Your task to perform on an android device: Open the stopwatch Image 0: 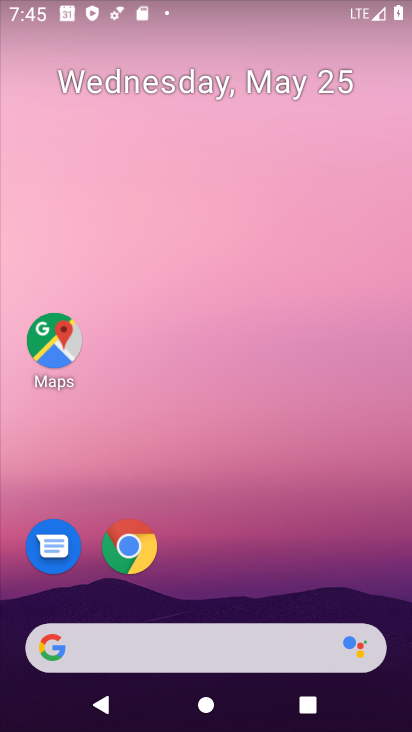
Step 0: drag from (383, 594) to (392, 295)
Your task to perform on an android device: Open the stopwatch Image 1: 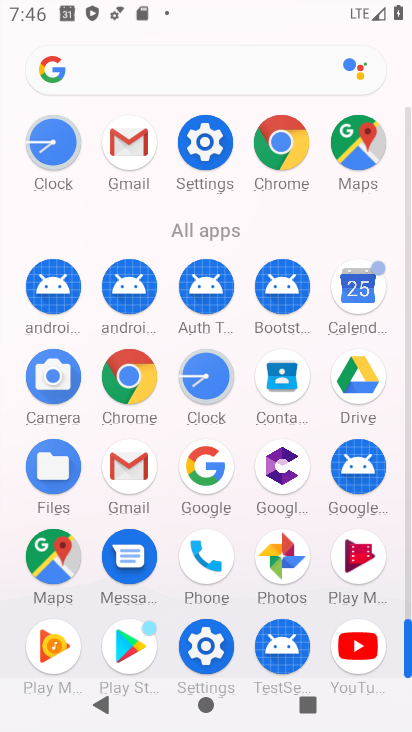
Step 1: click (210, 401)
Your task to perform on an android device: Open the stopwatch Image 2: 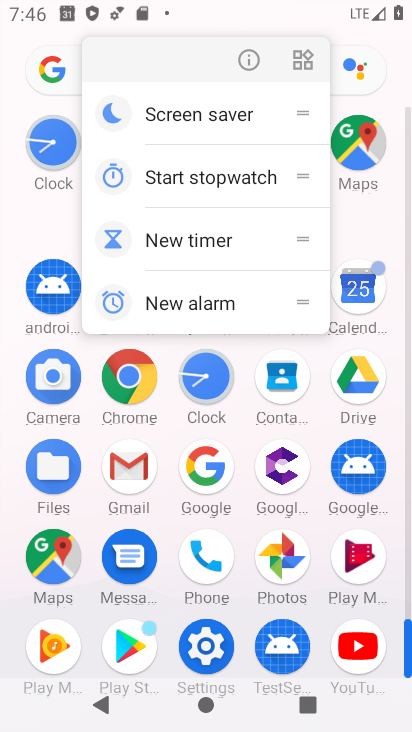
Step 2: click (210, 401)
Your task to perform on an android device: Open the stopwatch Image 3: 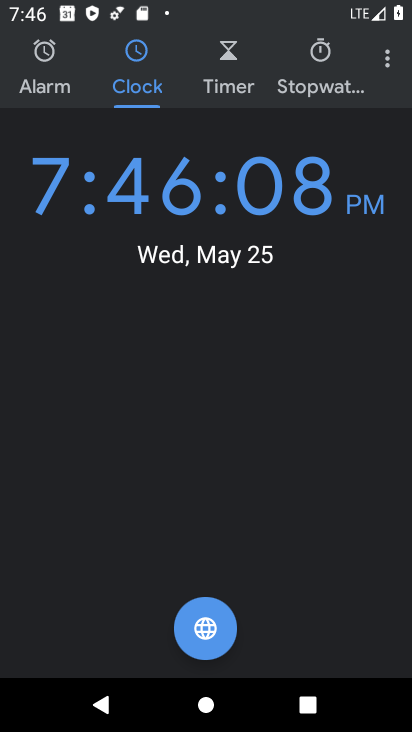
Step 3: click (320, 69)
Your task to perform on an android device: Open the stopwatch Image 4: 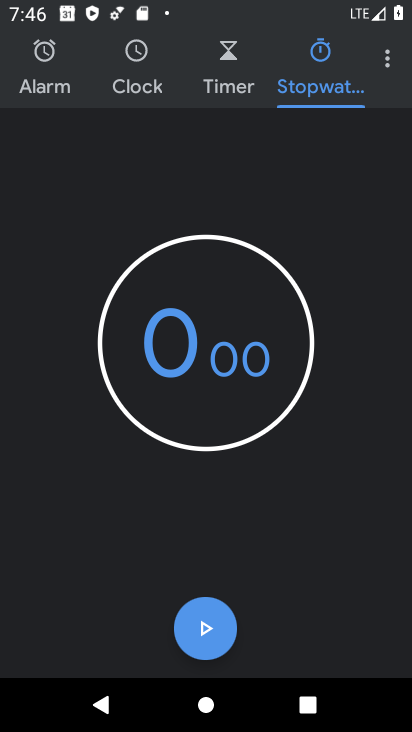
Step 4: task complete